Your task to perform on an android device: change notifications settings Image 0: 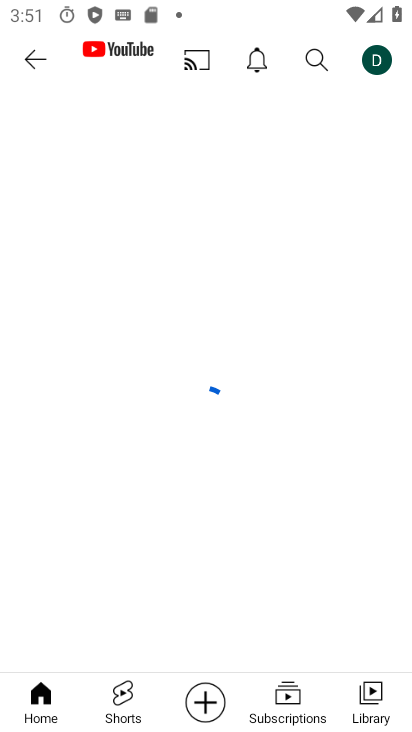
Step 0: press home button
Your task to perform on an android device: change notifications settings Image 1: 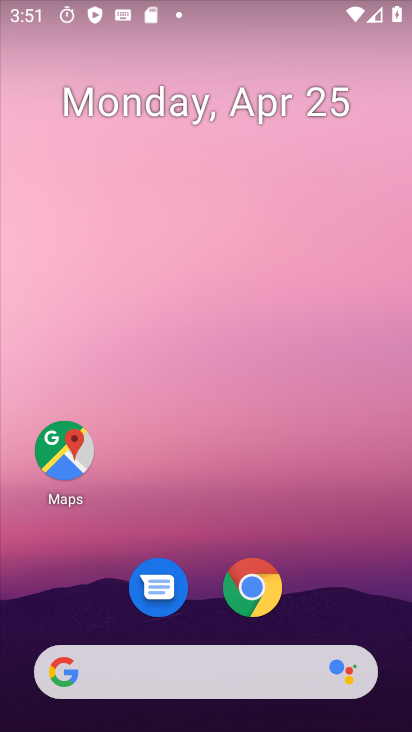
Step 1: drag from (372, 609) to (271, 166)
Your task to perform on an android device: change notifications settings Image 2: 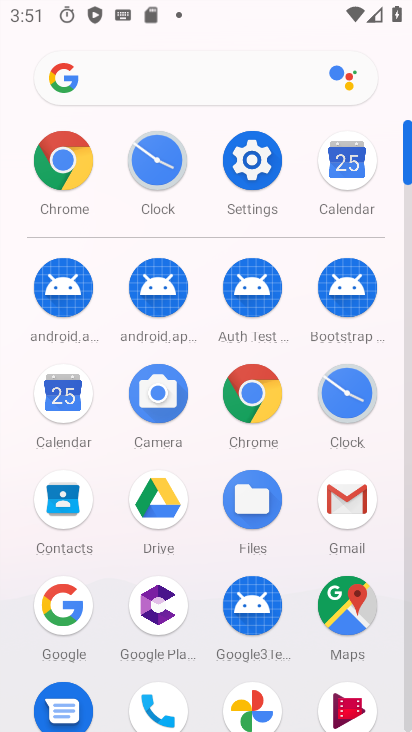
Step 2: click (260, 170)
Your task to perform on an android device: change notifications settings Image 3: 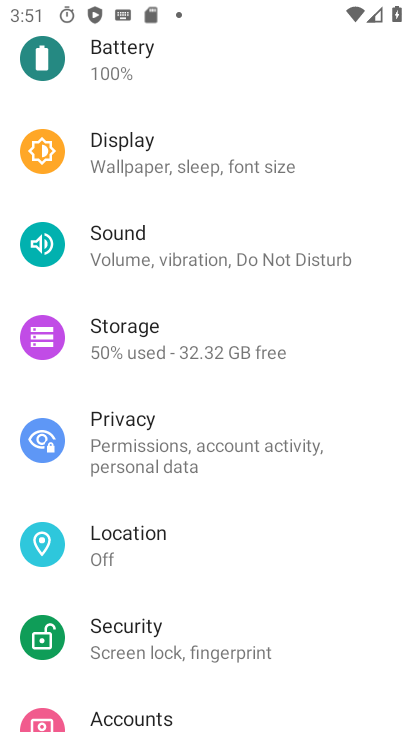
Step 3: drag from (250, 574) to (180, 88)
Your task to perform on an android device: change notifications settings Image 4: 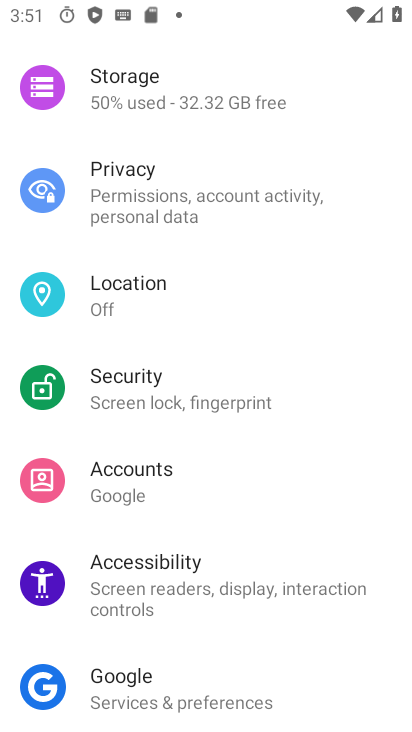
Step 4: drag from (237, 573) to (211, 108)
Your task to perform on an android device: change notifications settings Image 5: 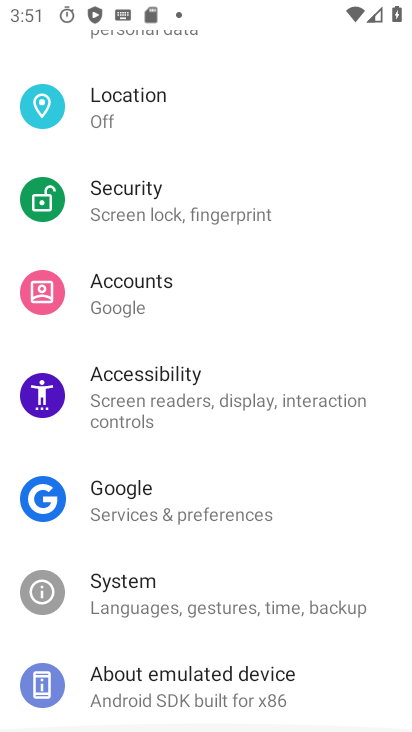
Step 5: drag from (208, 146) to (250, 637)
Your task to perform on an android device: change notifications settings Image 6: 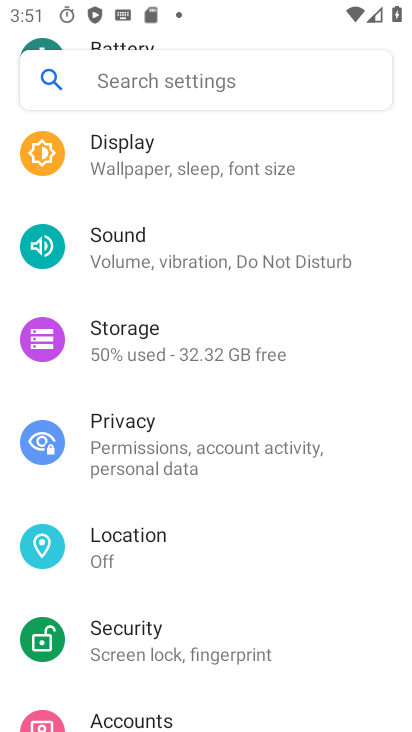
Step 6: drag from (221, 191) to (263, 573)
Your task to perform on an android device: change notifications settings Image 7: 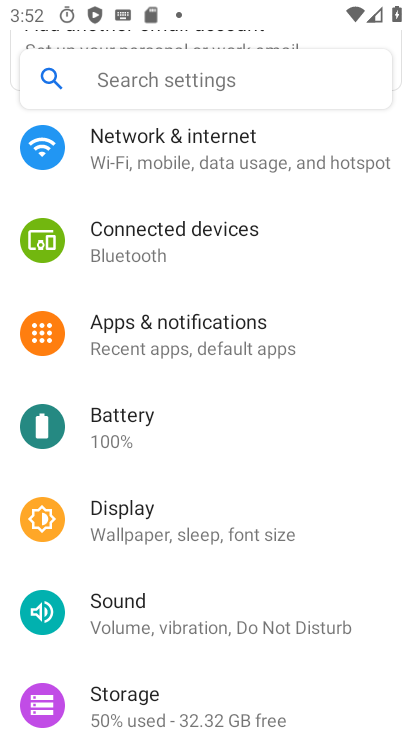
Step 7: click (178, 333)
Your task to perform on an android device: change notifications settings Image 8: 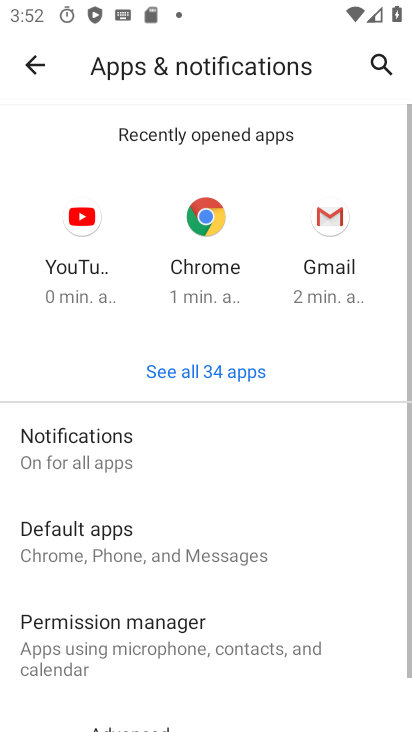
Step 8: drag from (216, 639) to (276, 206)
Your task to perform on an android device: change notifications settings Image 9: 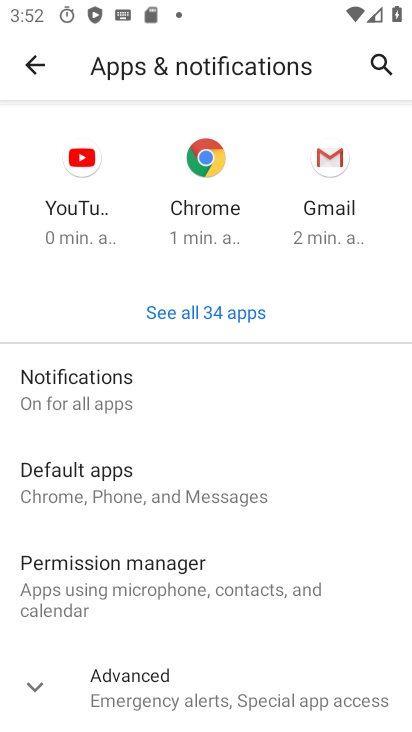
Step 9: drag from (220, 596) to (194, 253)
Your task to perform on an android device: change notifications settings Image 10: 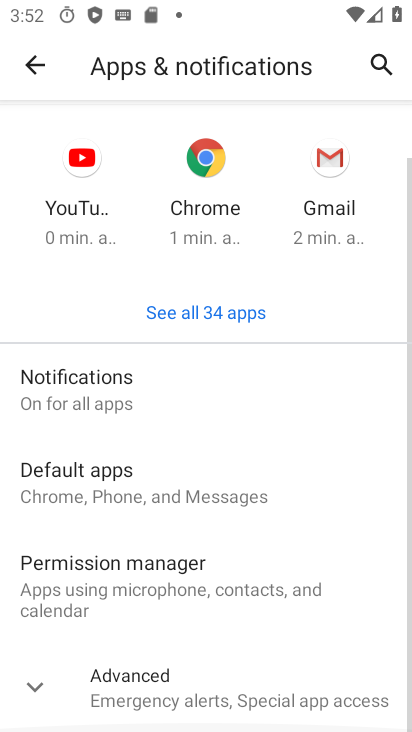
Step 10: click (115, 393)
Your task to perform on an android device: change notifications settings Image 11: 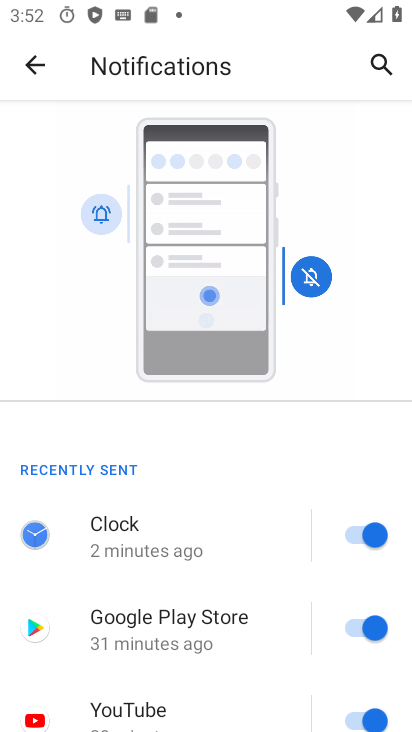
Step 11: task complete